Your task to perform on an android device: turn pop-ups on in chrome Image 0: 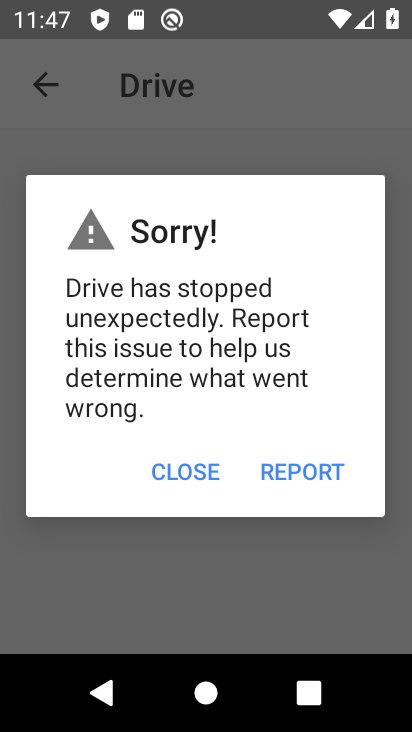
Step 0: press home button
Your task to perform on an android device: turn pop-ups on in chrome Image 1: 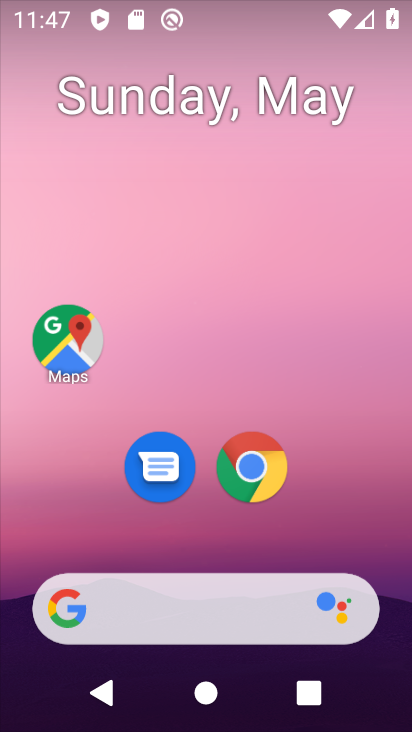
Step 1: click (263, 465)
Your task to perform on an android device: turn pop-ups on in chrome Image 2: 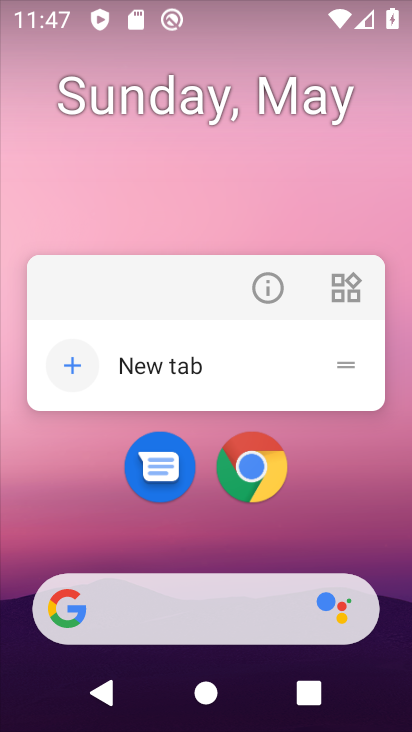
Step 2: click (258, 471)
Your task to perform on an android device: turn pop-ups on in chrome Image 3: 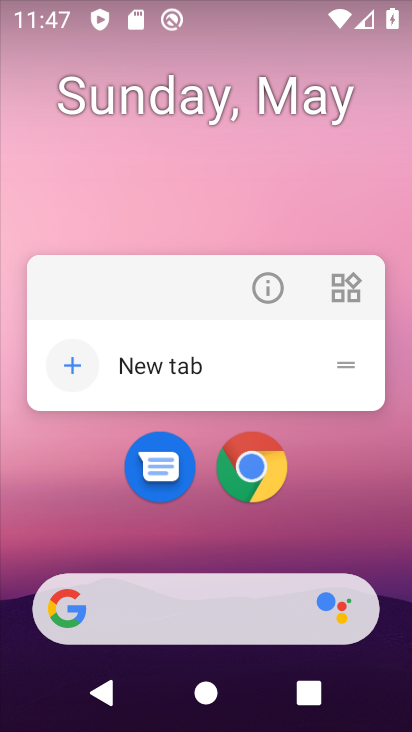
Step 3: click (267, 490)
Your task to perform on an android device: turn pop-ups on in chrome Image 4: 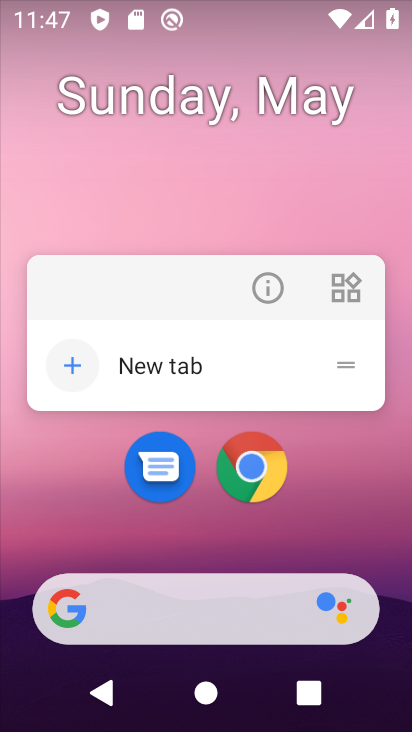
Step 4: click (268, 485)
Your task to perform on an android device: turn pop-ups on in chrome Image 5: 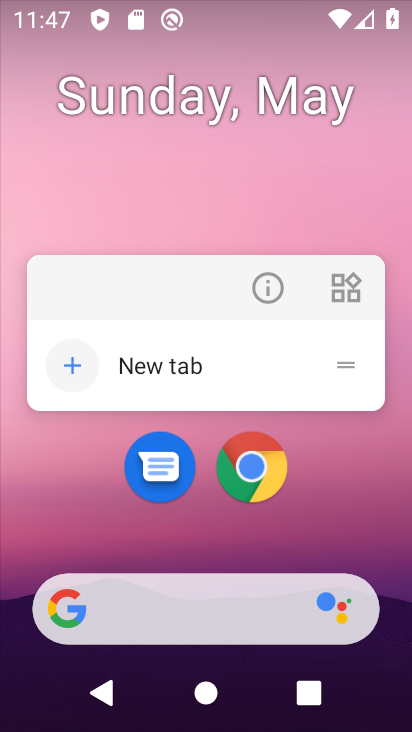
Step 5: click (269, 460)
Your task to perform on an android device: turn pop-ups on in chrome Image 6: 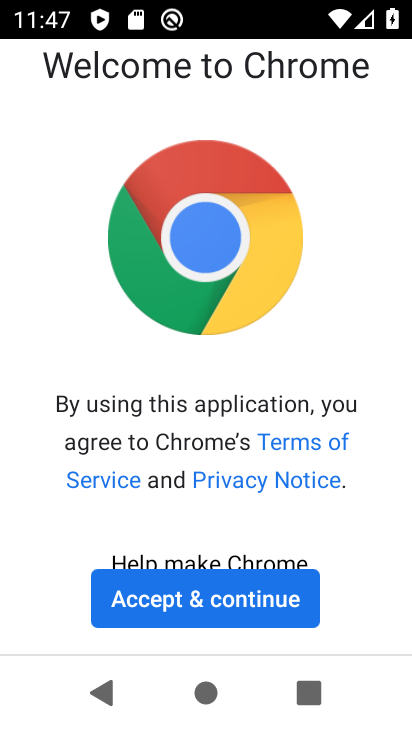
Step 6: click (272, 609)
Your task to perform on an android device: turn pop-ups on in chrome Image 7: 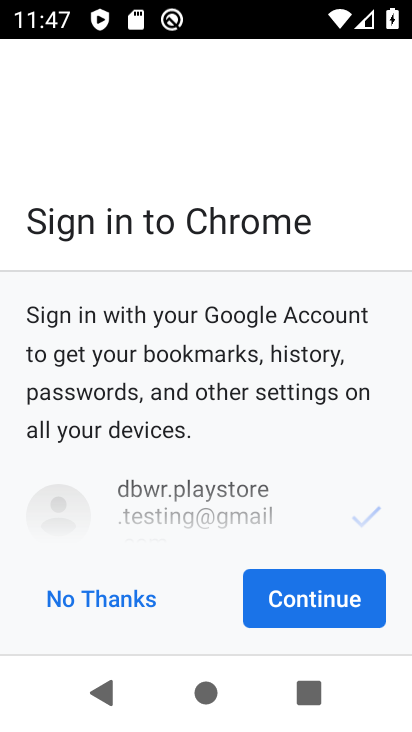
Step 7: click (291, 576)
Your task to perform on an android device: turn pop-ups on in chrome Image 8: 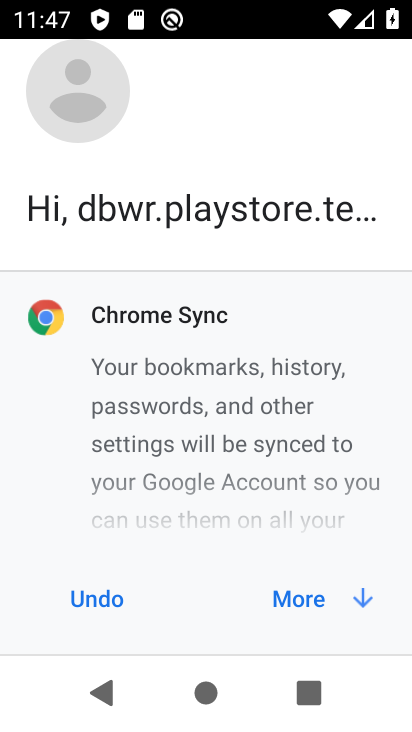
Step 8: click (335, 610)
Your task to perform on an android device: turn pop-ups on in chrome Image 9: 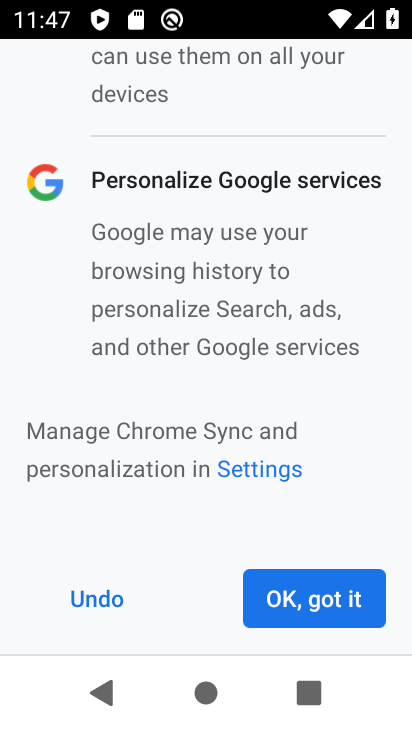
Step 9: click (335, 609)
Your task to perform on an android device: turn pop-ups on in chrome Image 10: 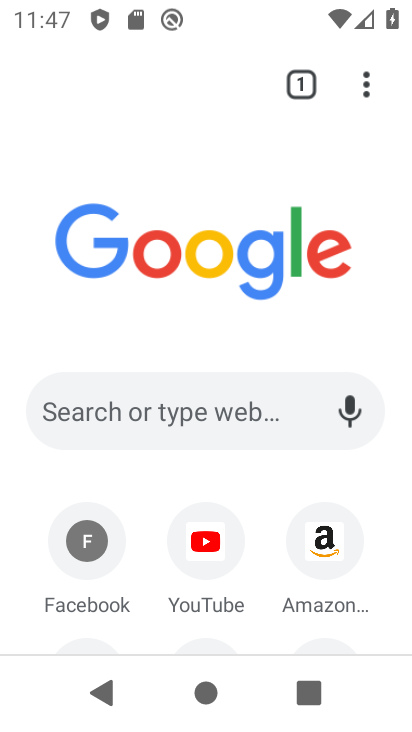
Step 10: drag from (366, 81) to (328, 522)
Your task to perform on an android device: turn pop-ups on in chrome Image 11: 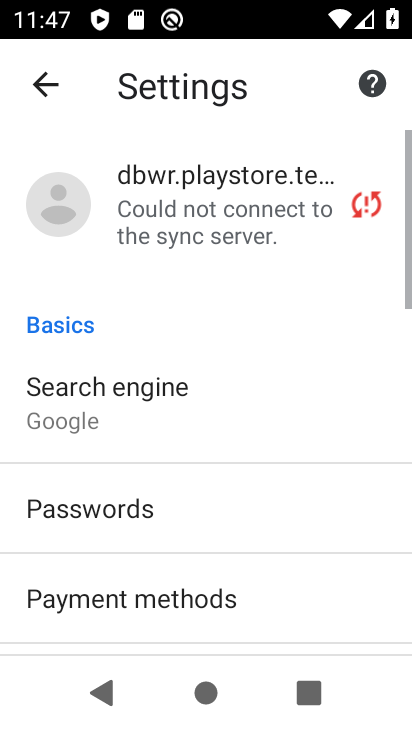
Step 11: drag from (16, 484) to (105, 242)
Your task to perform on an android device: turn pop-ups on in chrome Image 12: 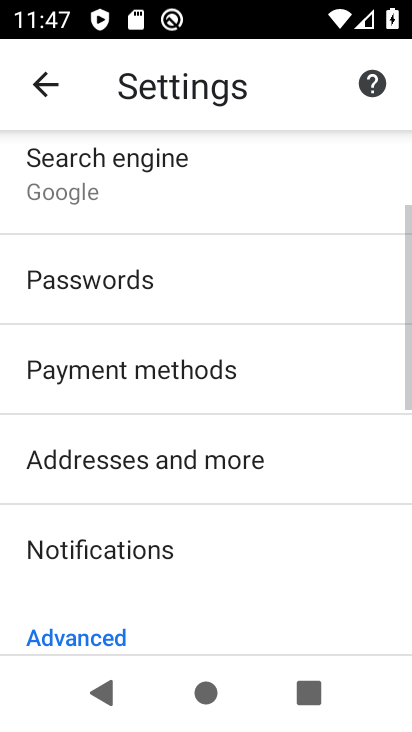
Step 12: drag from (110, 580) to (258, 202)
Your task to perform on an android device: turn pop-ups on in chrome Image 13: 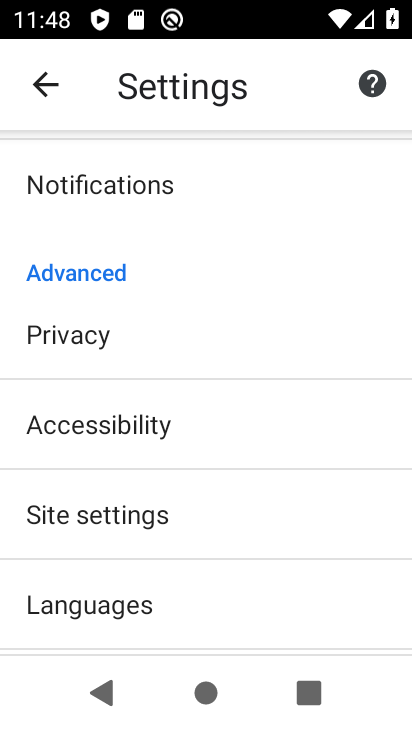
Step 13: click (213, 521)
Your task to perform on an android device: turn pop-ups on in chrome Image 14: 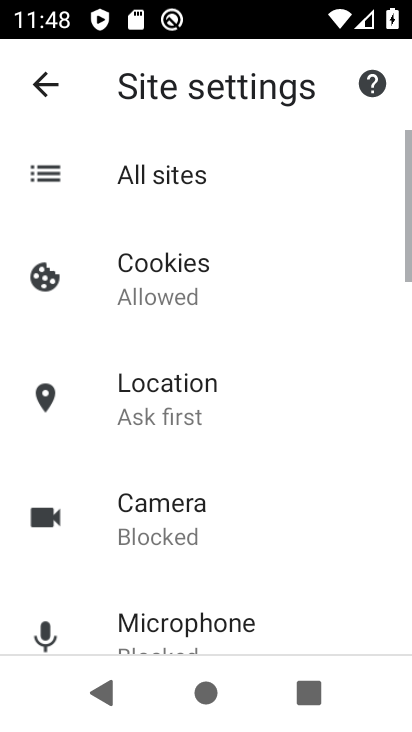
Step 14: drag from (213, 522) to (302, 189)
Your task to perform on an android device: turn pop-ups on in chrome Image 15: 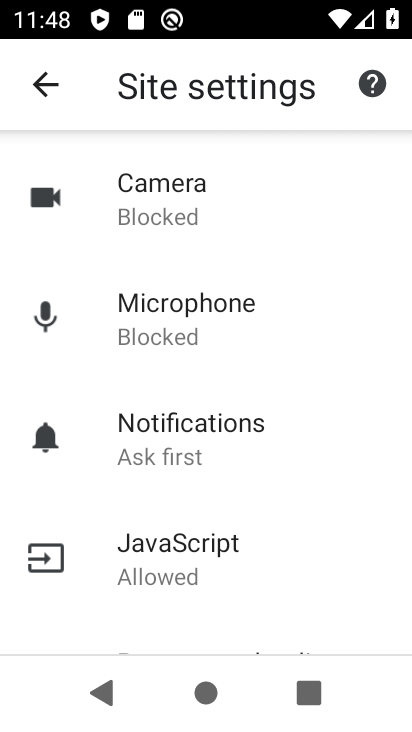
Step 15: drag from (207, 576) to (257, 317)
Your task to perform on an android device: turn pop-ups on in chrome Image 16: 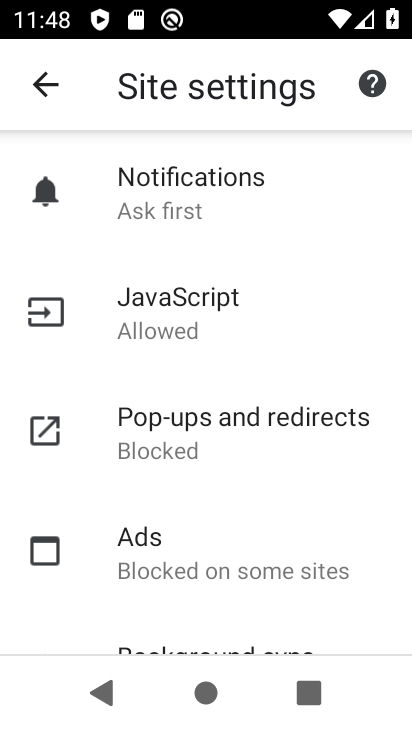
Step 16: click (230, 420)
Your task to perform on an android device: turn pop-ups on in chrome Image 17: 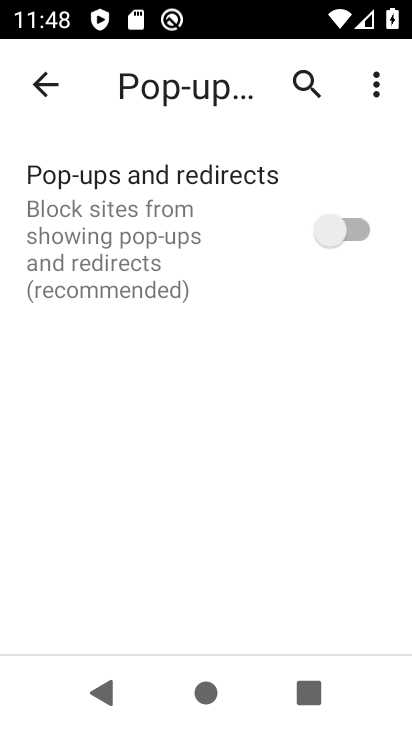
Step 17: click (376, 226)
Your task to perform on an android device: turn pop-ups on in chrome Image 18: 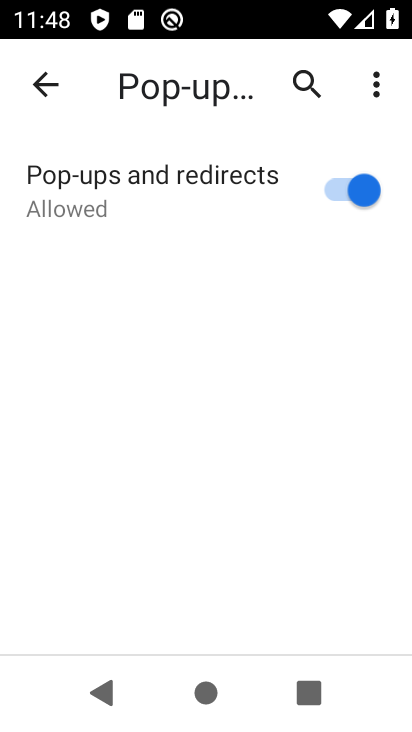
Step 18: task complete